Your task to perform on an android device: change the upload size in google photos Image 0: 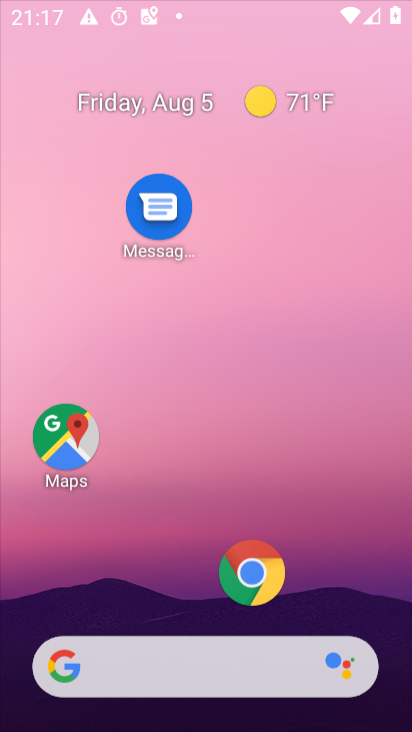
Step 0: press home button
Your task to perform on an android device: change the upload size in google photos Image 1: 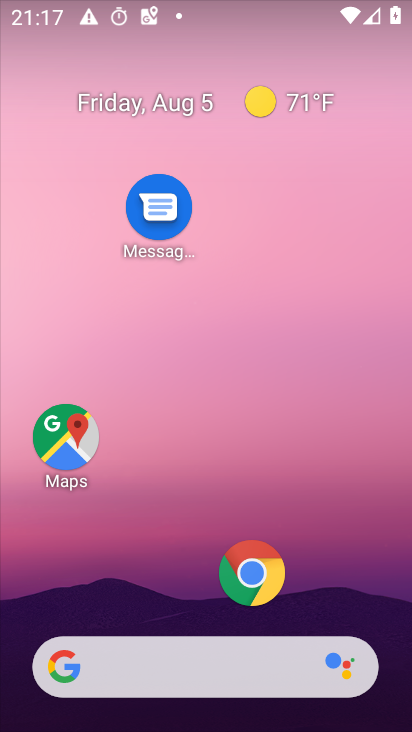
Step 1: drag from (200, 606) to (239, 81)
Your task to perform on an android device: change the upload size in google photos Image 2: 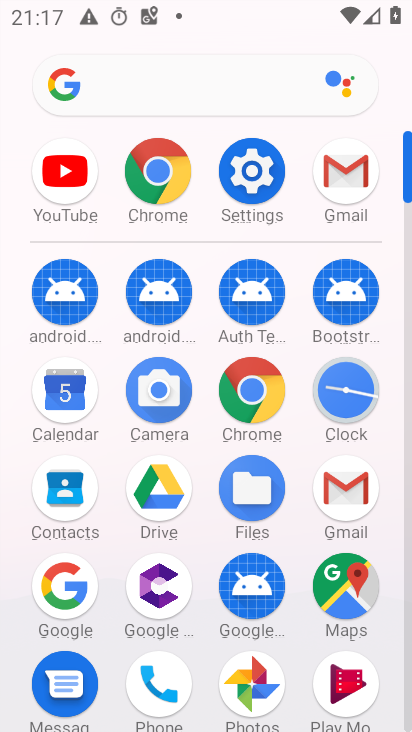
Step 2: click (248, 676)
Your task to perform on an android device: change the upload size in google photos Image 3: 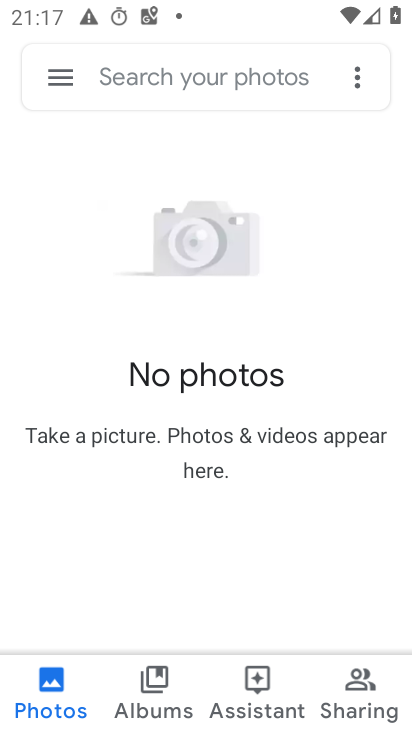
Step 3: click (57, 68)
Your task to perform on an android device: change the upload size in google photos Image 4: 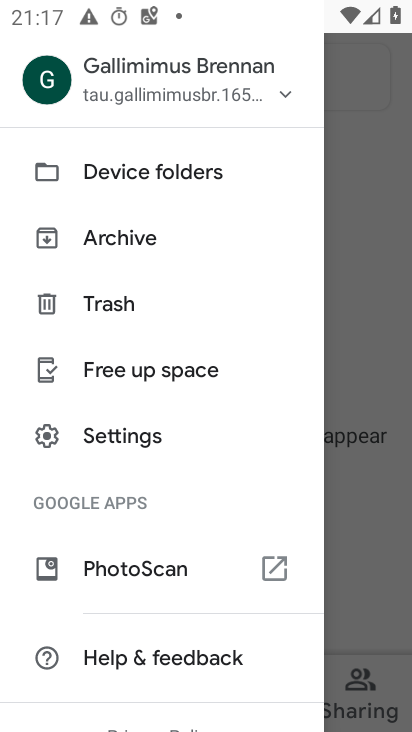
Step 4: click (177, 433)
Your task to perform on an android device: change the upload size in google photos Image 5: 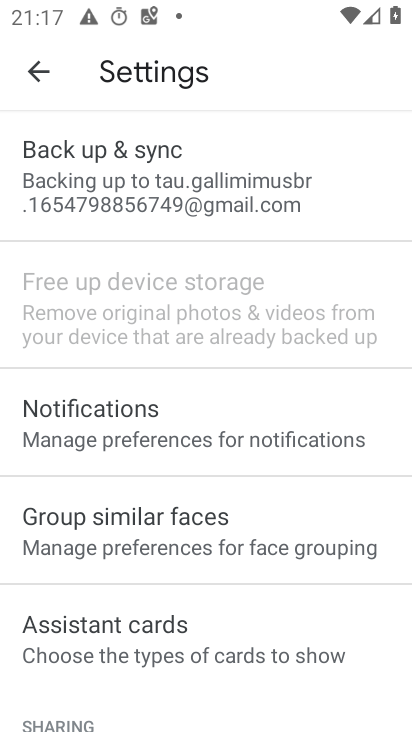
Step 5: click (163, 170)
Your task to perform on an android device: change the upload size in google photos Image 6: 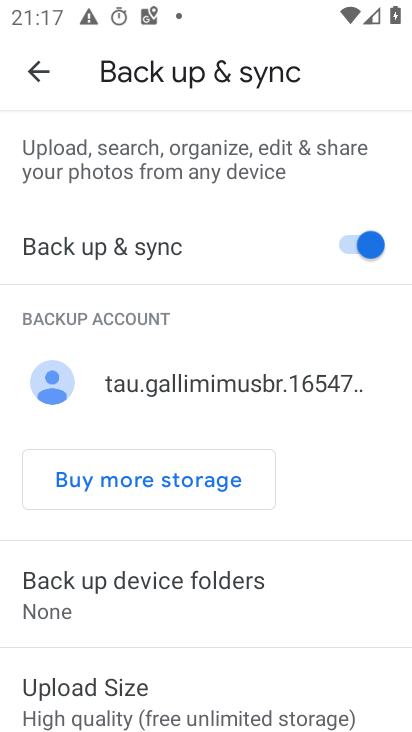
Step 6: drag from (200, 658) to (193, 503)
Your task to perform on an android device: change the upload size in google photos Image 7: 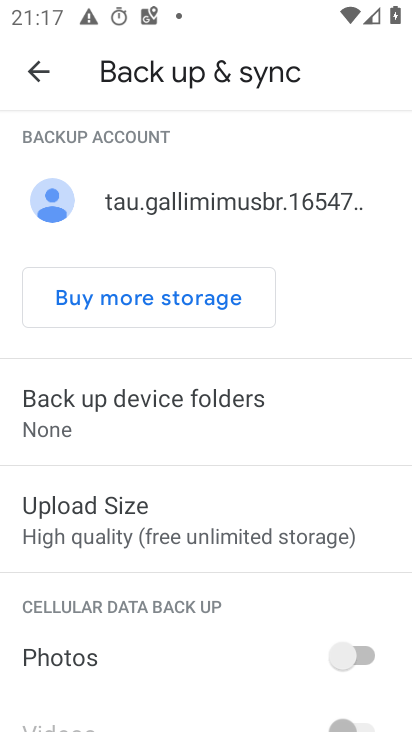
Step 7: click (171, 510)
Your task to perform on an android device: change the upload size in google photos Image 8: 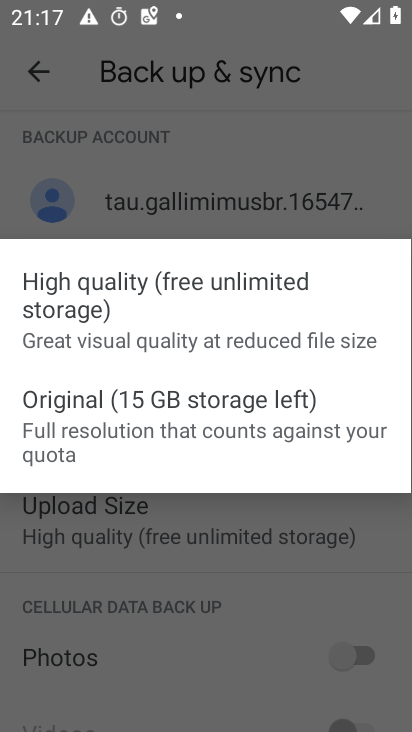
Step 8: click (132, 434)
Your task to perform on an android device: change the upload size in google photos Image 9: 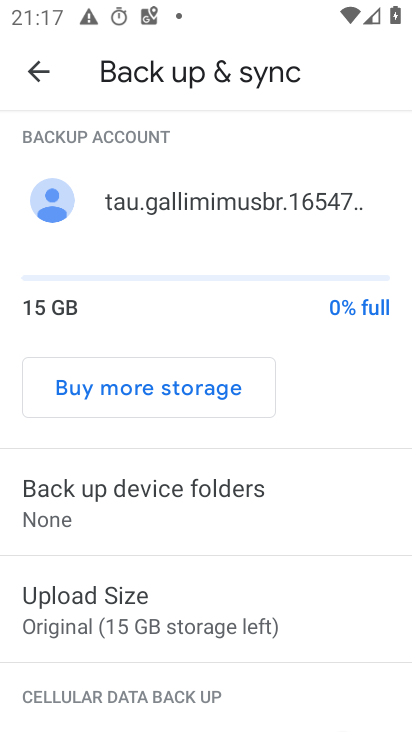
Step 9: task complete